Your task to perform on an android device: open the mobile data screen to see how much data has been used Image 0: 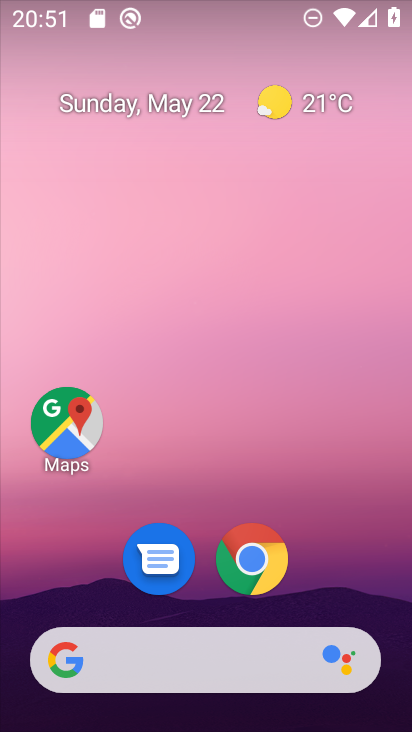
Step 0: press home button
Your task to perform on an android device: open the mobile data screen to see how much data has been used Image 1: 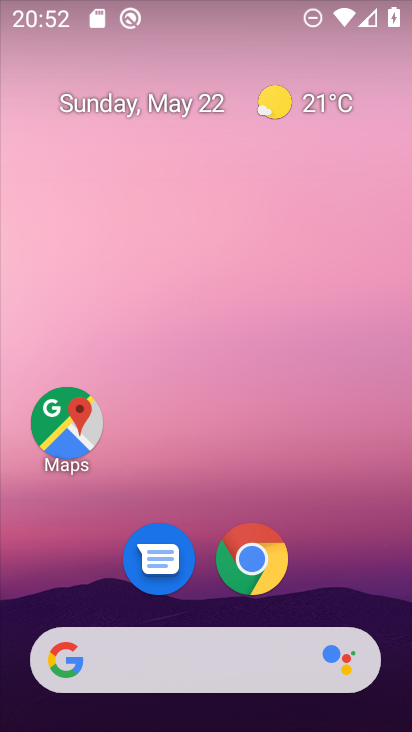
Step 1: drag from (285, 685) to (204, 234)
Your task to perform on an android device: open the mobile data screen to see how much data has been used Image 2: 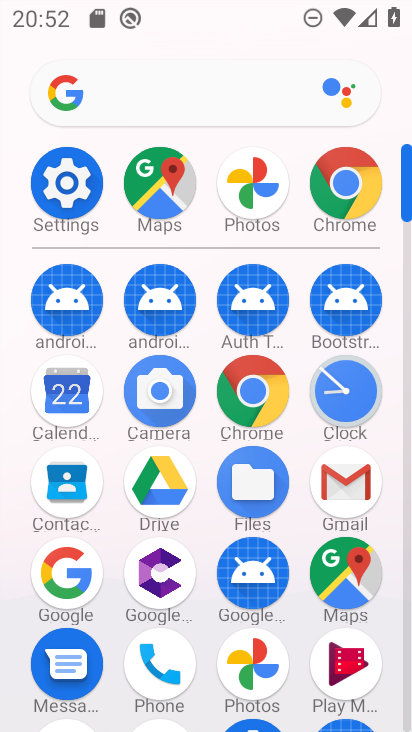
Step 2: click (52, 187)
Your task to perform on an android device: open the mobile data screen to see how much data has been used Image 3: 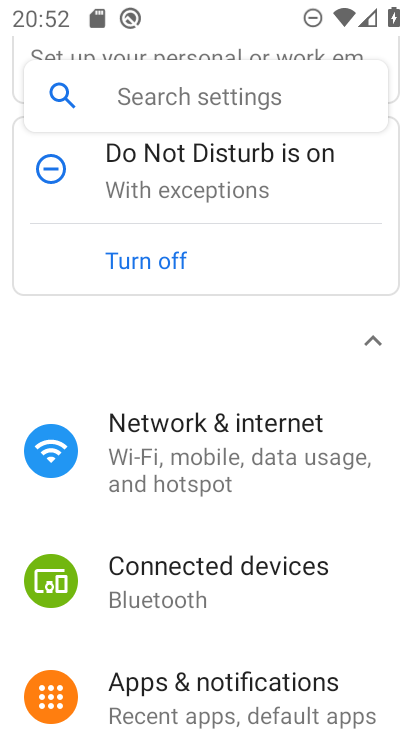
Step 3: click (175, 106)
Your task to perform on an android device: open the mobile data screen to see how much data has been used Image 4: 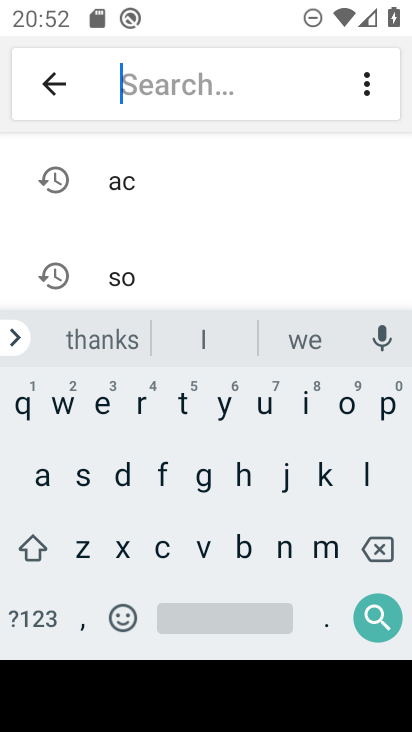
Step 4: click (115, 476)
Your task to perform on an android device: open the mobile data screen to see how much data has been used Image 5: 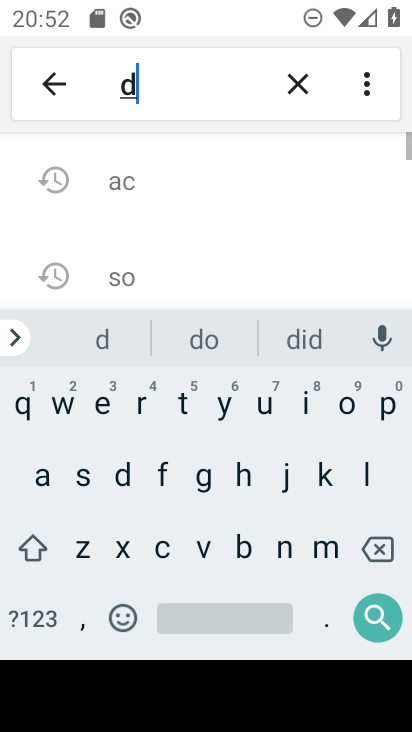
Step 5: click (38, 472)
Your task to perform on an android device: open the mobile data screen to see how much data has been used Image 6: 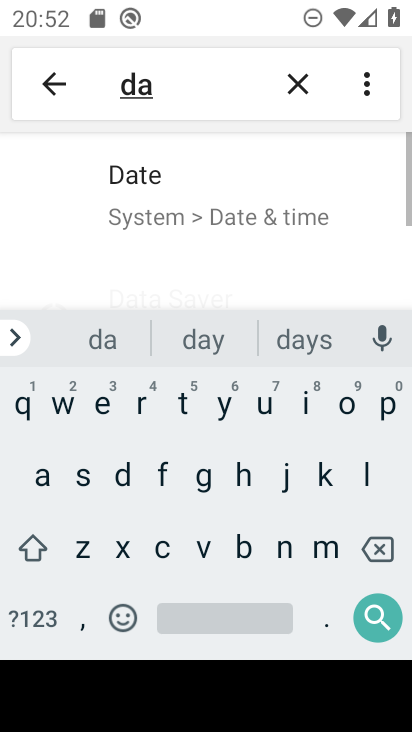
Step 6: click (188, 398)
Your task to perform on an android device: open the mobile data screen to see how much data has been used Image 7: 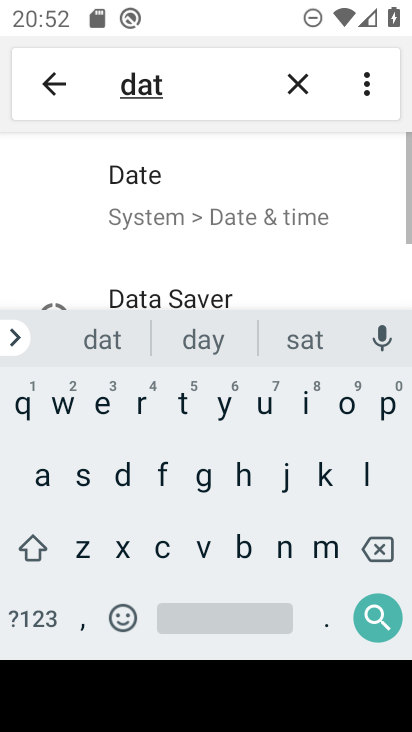
Step 7: click (41, 472)
Your task to perform on an android device: open the mobile data screen to see how much data has been used Image 8: 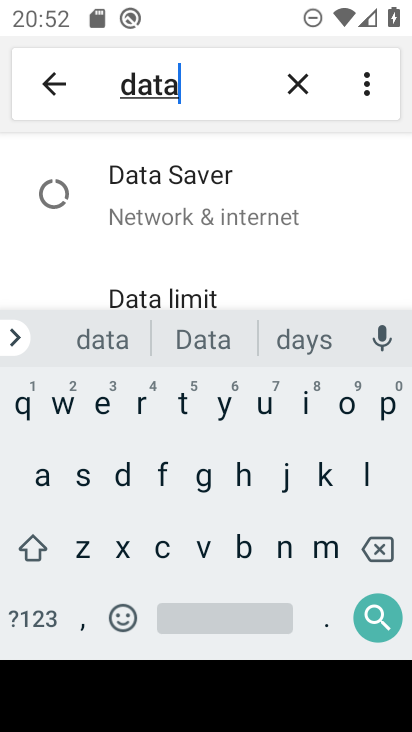
Step 8: click (251, 623)
Your task to perform on an android device: open the mobile data screen to see how much data has been used Image 9: 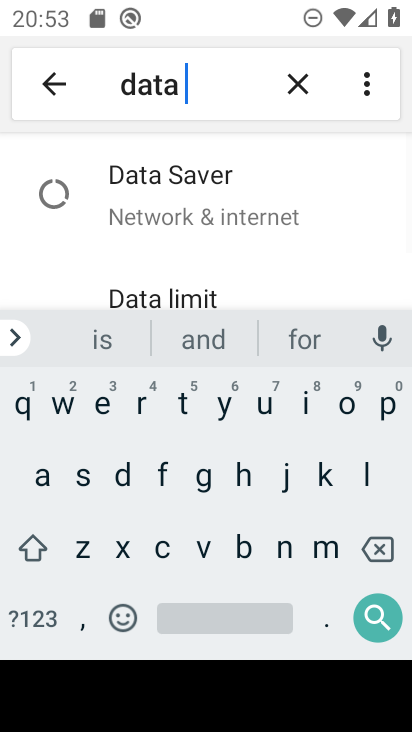
Step 9: click (260, 403)
Your task to perform on an android device: open the mobile data screen to see how much data has been used Image 10: 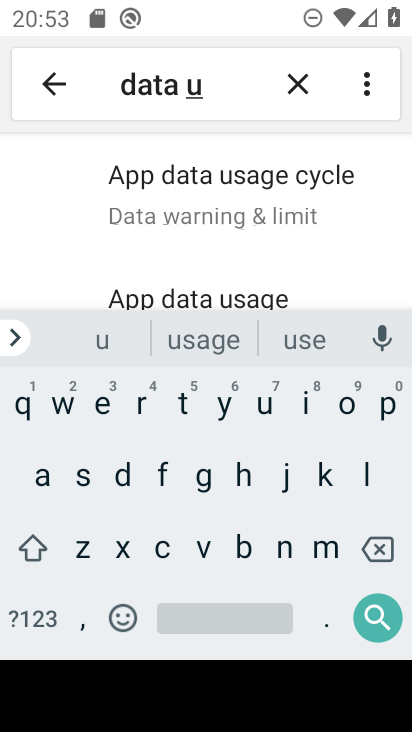
Step 10: click (223, 290)
Your task to perform on an android device: open the mobile data screen to see how much data has been used Image 11: 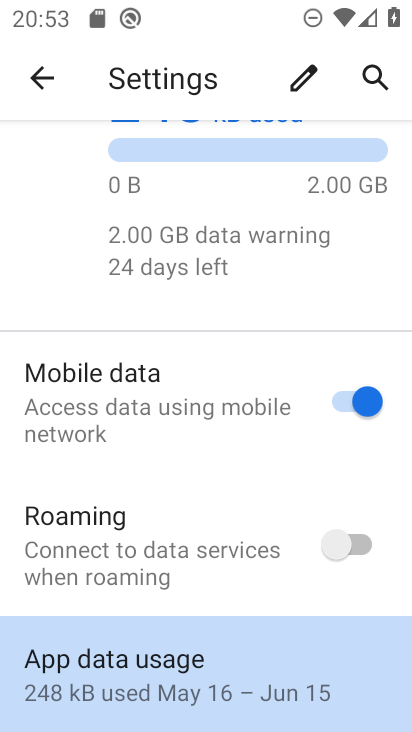
Step 11: click (195, 661)
Your task to perform on an android device: open the mobile data screen to see how much data has been used Image 12: 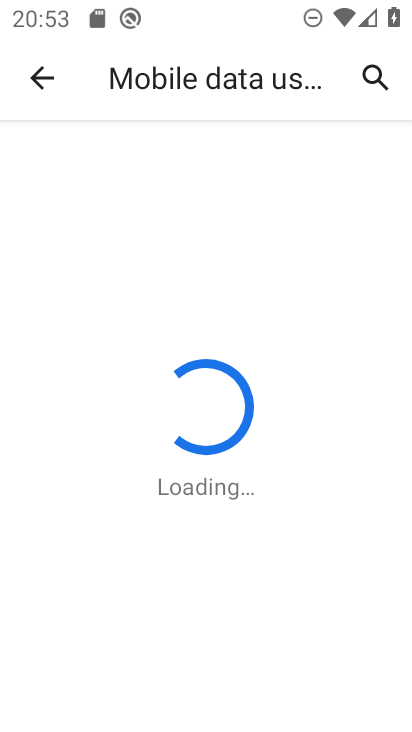
Step 12: task complete